Your task to perform on an android device: What's on my calendar tomorrow? Image 0: 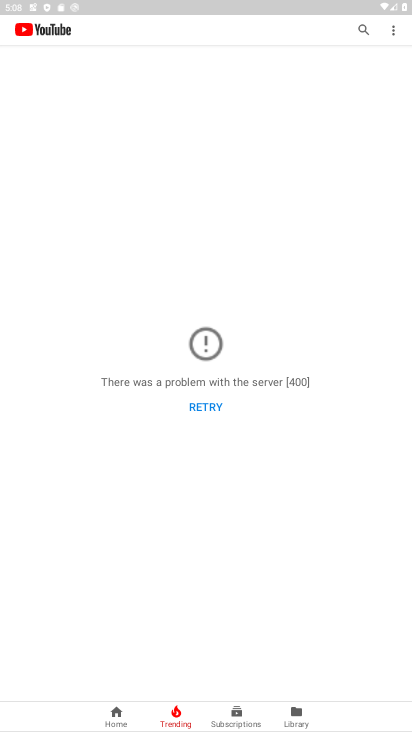
Step 0: press home button
Your task to perform on an android device: What's on my calendar tomorrow? Image 1: 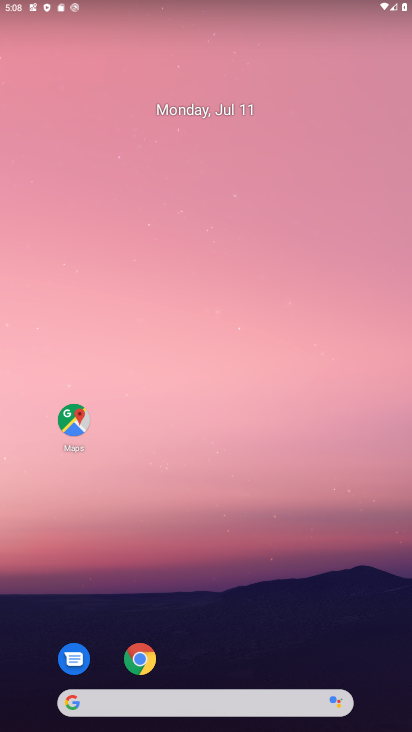
Step 1: drag from (352, 646) to (321, 90)
Your task to perform on an android device: What's on my calendar tomorrow? Image 2: 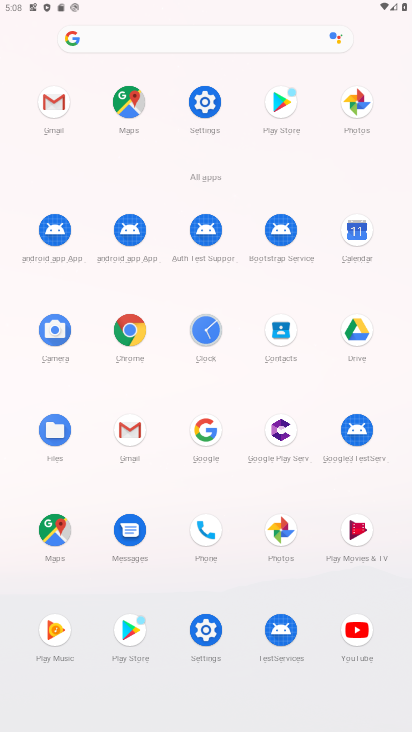
Step 2: click (354, 231)
Your task to perform on an android device: What's on my calendar tomorrow? Image 3: 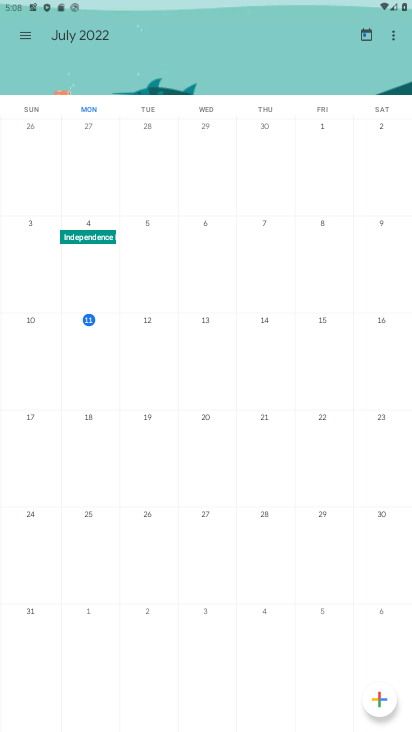
Step 3: click (143, 320)
Your task to perform on an android device: What's on my calendar tomorrow? Image 4: 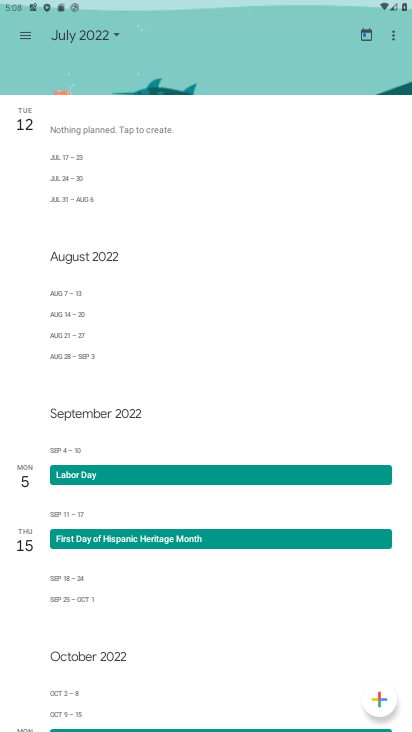
Step 4: click (22, 39)
Your task to perform on an android device: What's on my calendar tomorrow? Image 5: 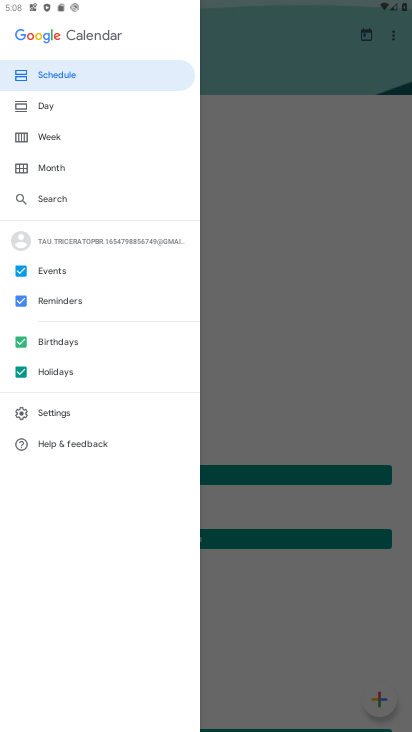
Step 5: click (50, 111)
Your task to perform on an android device: What's on my calendar tomorrow? Image 6: 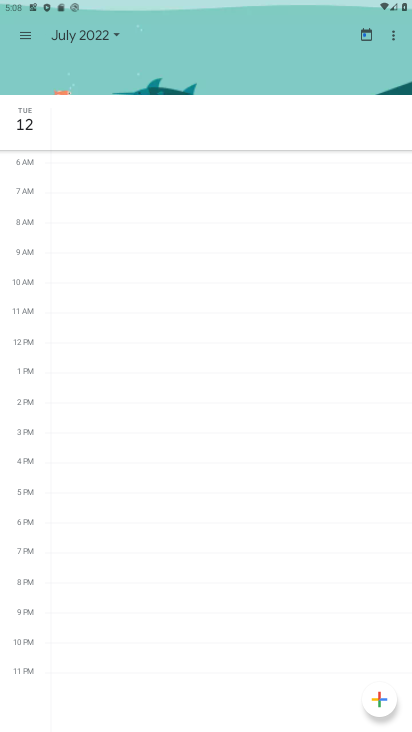
Step 6: task complete